Your task to perform on an android device: set the stopwatch Image 0: 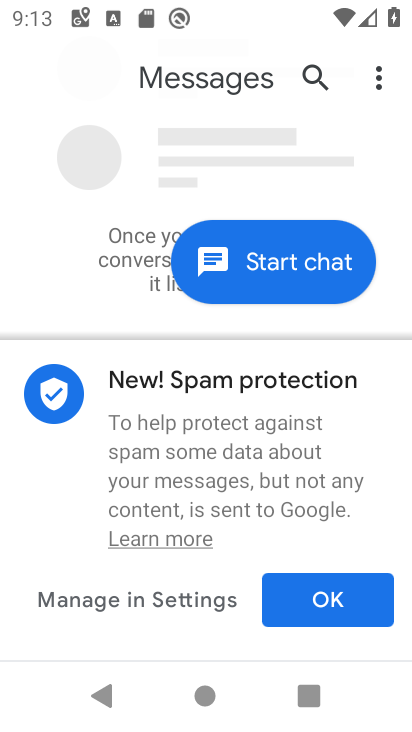
Step 0: click (404, 622)
Your task to perform on an android device: set the stopwatch Image 1: 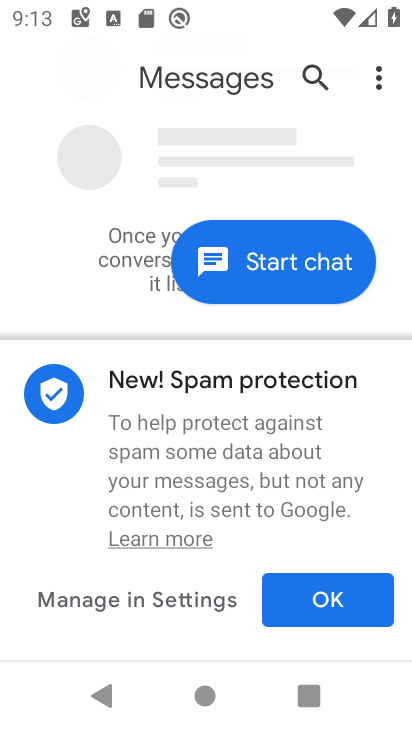
Step 1: press home button
Your task to perform on an android device: set the stopwatch Image 2: 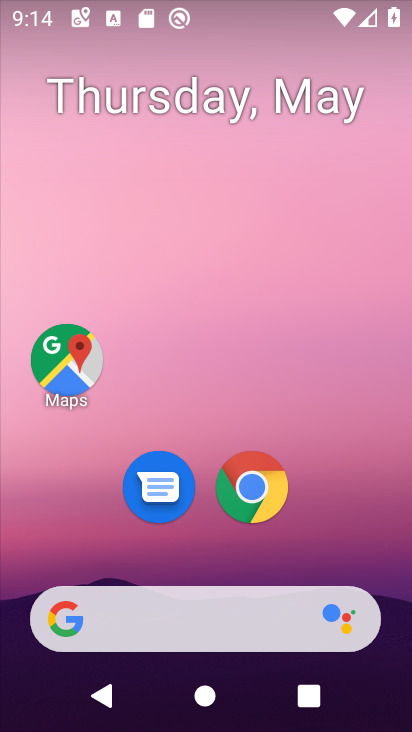
Step 2: drag from (314, 528) to (33, 98)
Your task to perform on an android device: set the stopwatch Image 3: 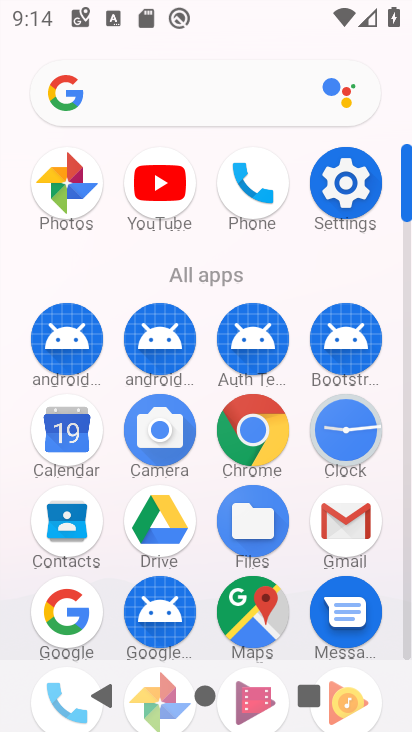
Step 3: click (359, 429)
Your task to perform on an android device: set the stopwatch Image 4: 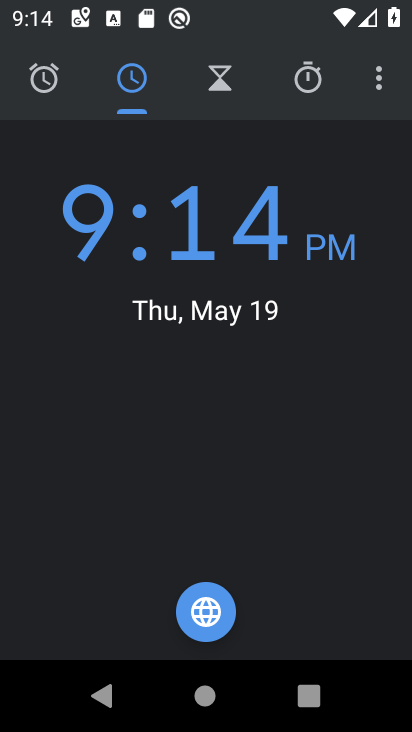
Step 4: click (300, 206)
Your task to perform on an android device: set the stopwatch Image 5: 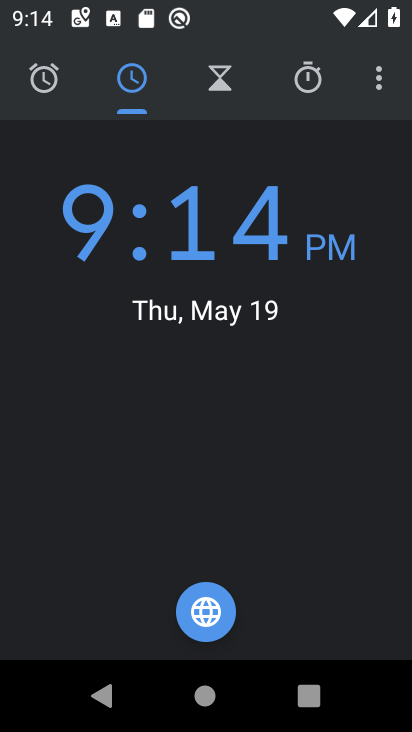
Step 5: click (309, 83)
Your task to perform on an android device: set the stopwatch Image 6: 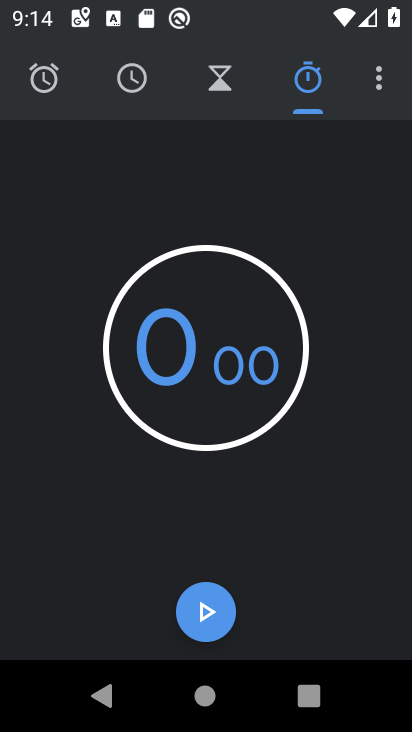
Step 6: click (200, 598)
Your task to perform on an android device: set the stopwatch Image 7: 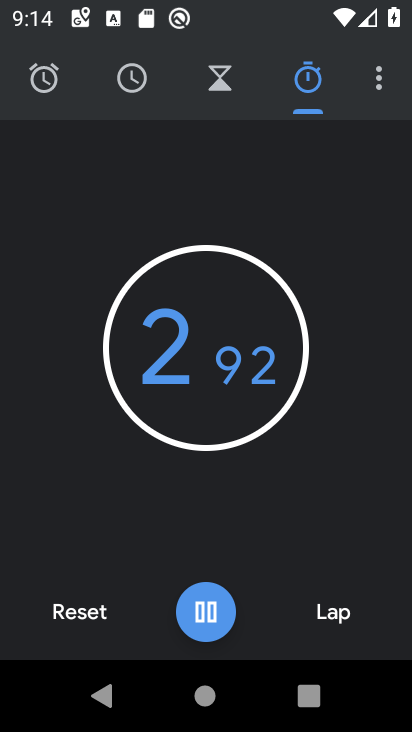
Step 7: task complete